Your task to perform on an android device: Go to eBay Image 0: 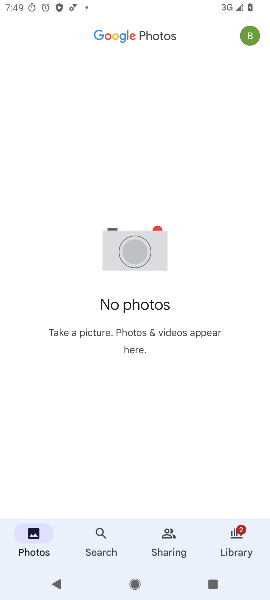
Step 0: press home button
Your task to perform on an android device: Go to eBay Image 1: 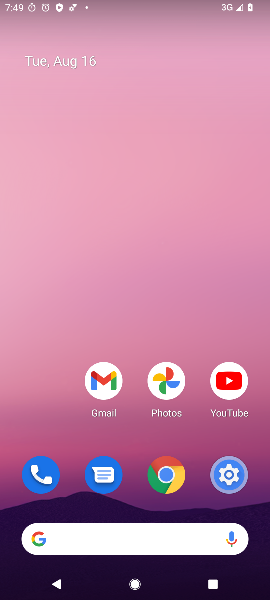
Step 1: drag from (196, 492) to (152, 0)
Your task to perform on an android device: Go to eBay Image 2: 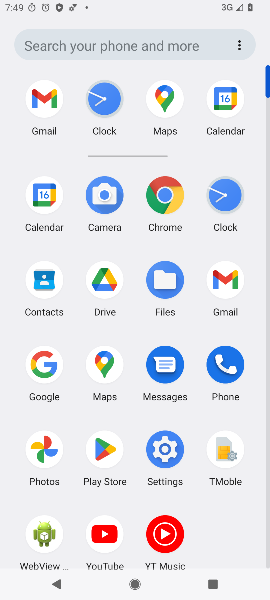
Step 2: click (45, 364)
Your task to perform on an android device: Go to eBay Image 3: 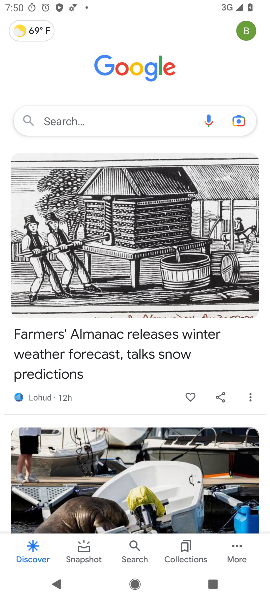
Step 3: click (88, 117)
Your task to perform on an android device: Go to eBay Image 4: 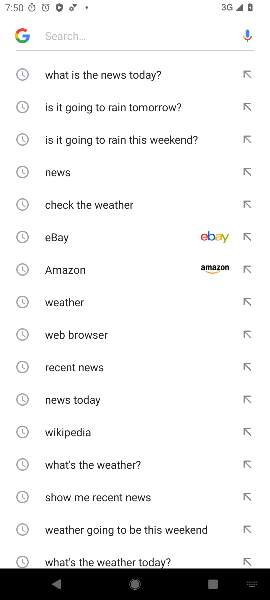
Step 4: click (59, 231)
Your task to perform on an android device: Go to eBay Image 5: 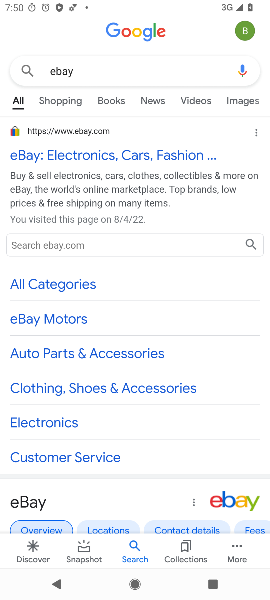
Step 5: task complete